Your task to perform on an android device: see sites visited before in the chrome app Image 0: 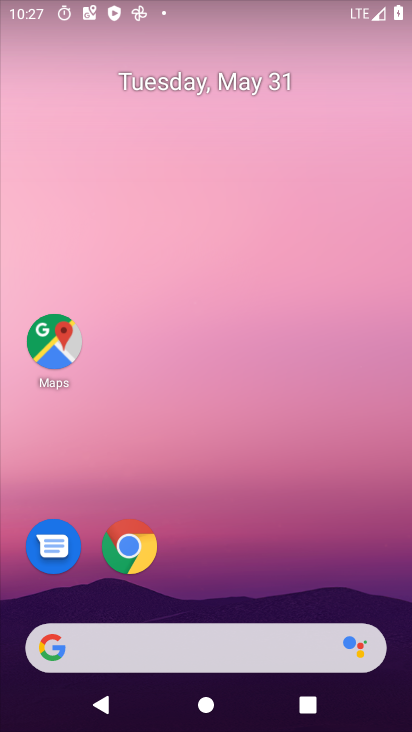
Step 0: drag from (274, 537) to (329, 55)
Your task to perform on an android device: see sites visited before in the chrome app Image 1: 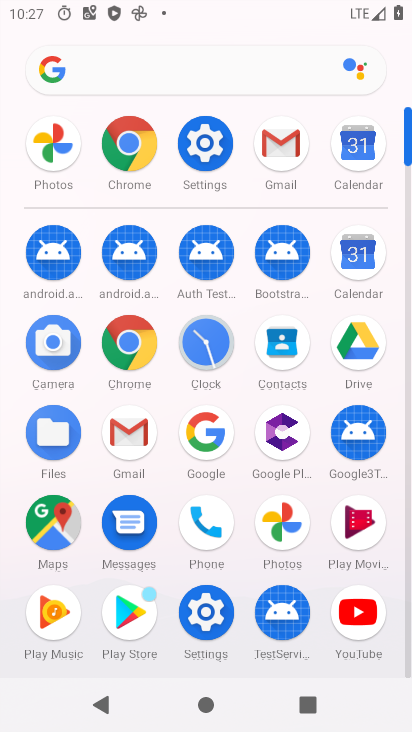
Step 1: click (144, 137)
Your task to perform on an android device: see sites visited before in the chrome app Image 2: 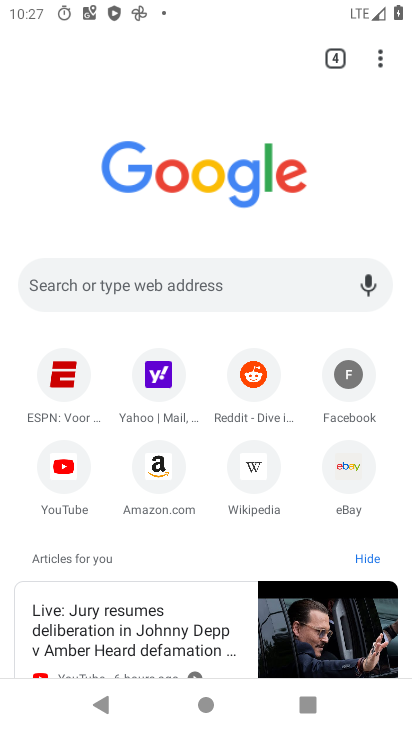
Step 2: click (392, 54)
Your task to perform on an android device: see sites visited before in the chrome app Image 3: 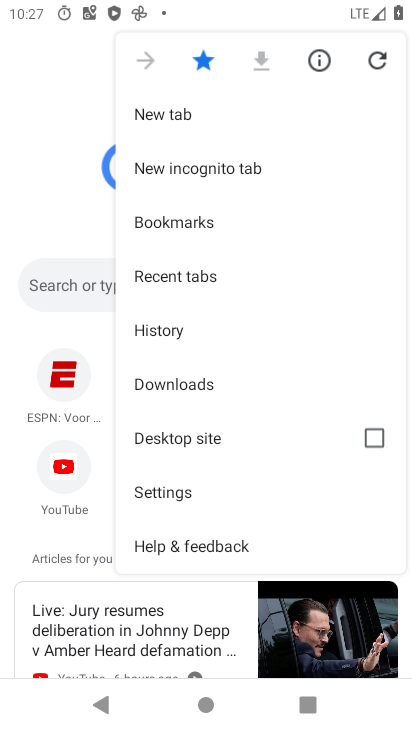
Step 3: click (206, 484)
Your task to perform on an android device: see sites visited before in the chrome app Image 4: 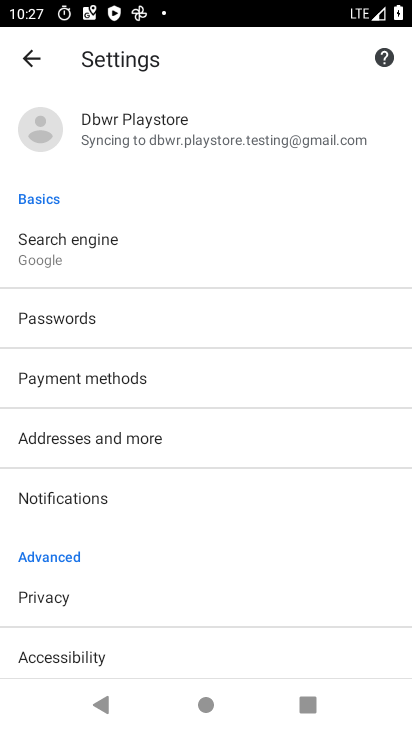
Step 4: drag from (220, 520) to (302, 204)
Your task to perform on an android device: see sites visited before in the chrome app Image 5: 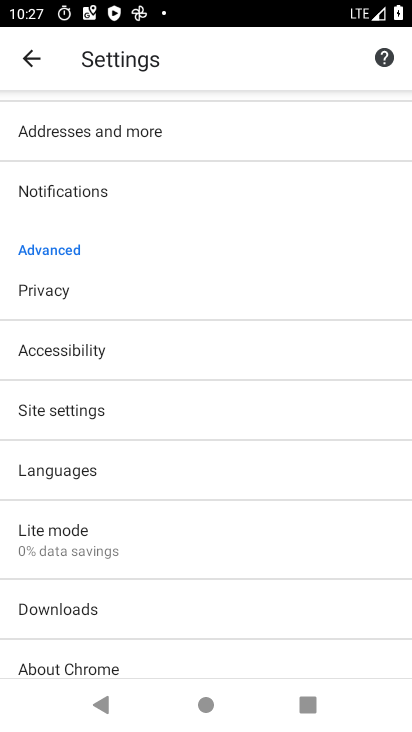
Step 5: click (95, 403)
Your task to perform on an android device: see sites visited before in the chrome app Image 6: 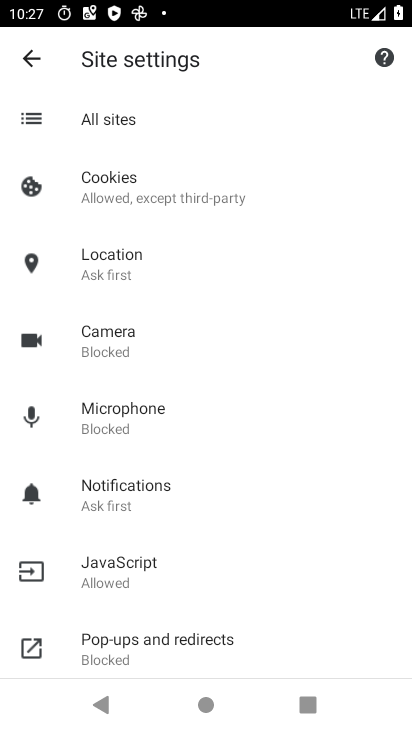
Step 6: task complete